Your task to perform on an android device: delete a single message in the gmail app Image 0: 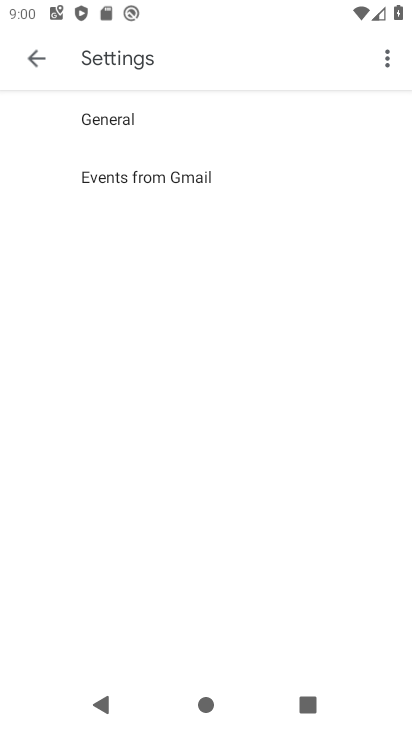
Step 0: press home button
Your task to perform on an android device: delete a single message in the gmail app Image 1: 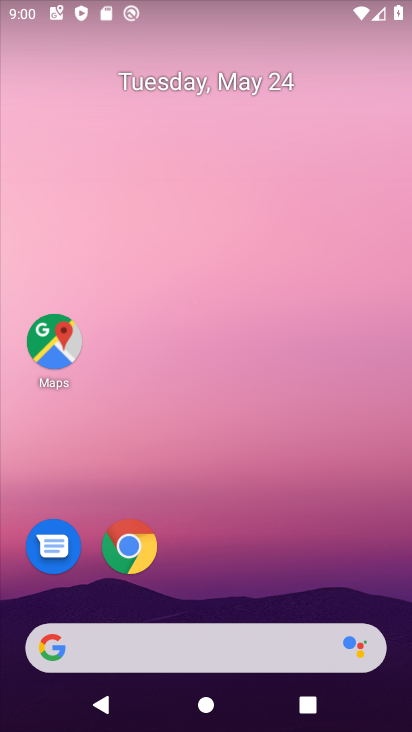
Step 1: drag from (140, 624) to (147, 275)
Your task to perform on an android device: delete a single message in the gmail app Image 2: 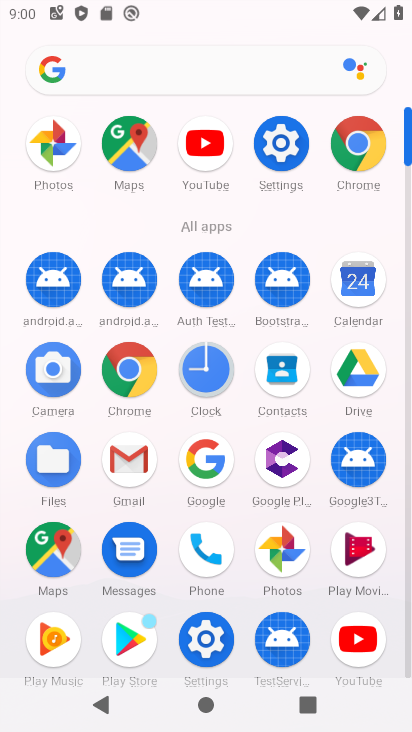
Step 2: click (139, 459)
Your task to perform on an android device: delete a single message in the gmail app Image 3: 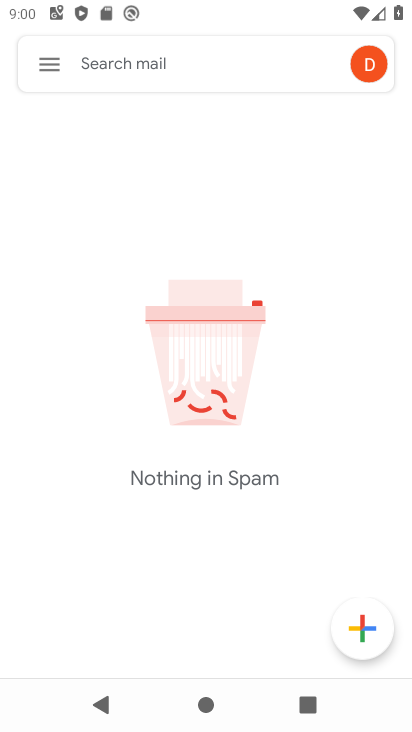
Step 3: click (48, 49)
Your task to perform on an android device: delete a single message in the gmail app Image 4: 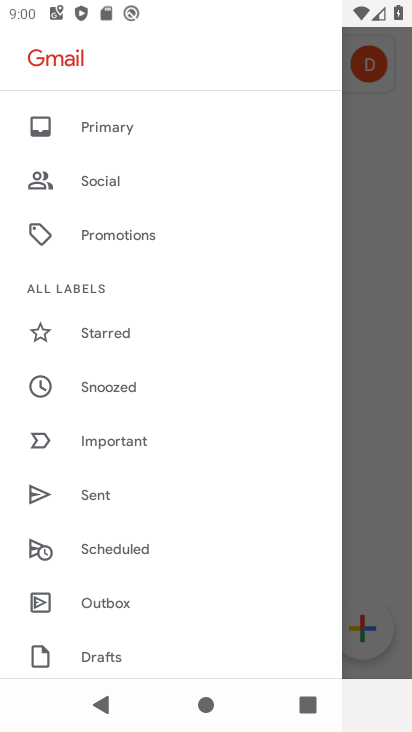
Step 4: click (99, 135)
Your task to perform on an android device: delete a single message in the gmail app Image 5: 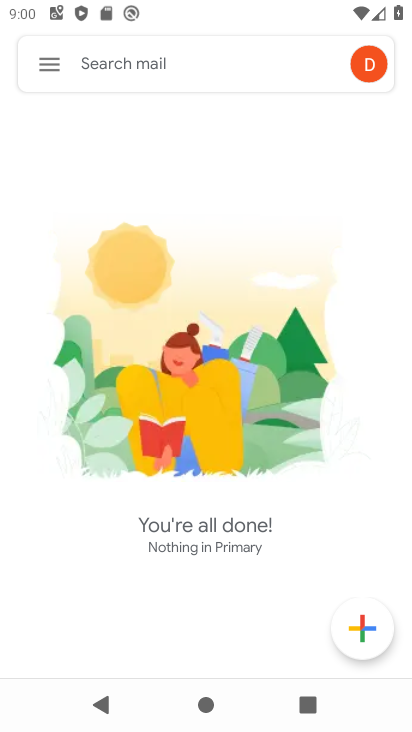
Step 5: task complete